Your task to perform on an android device: turn off notifications in google photos Image 0: 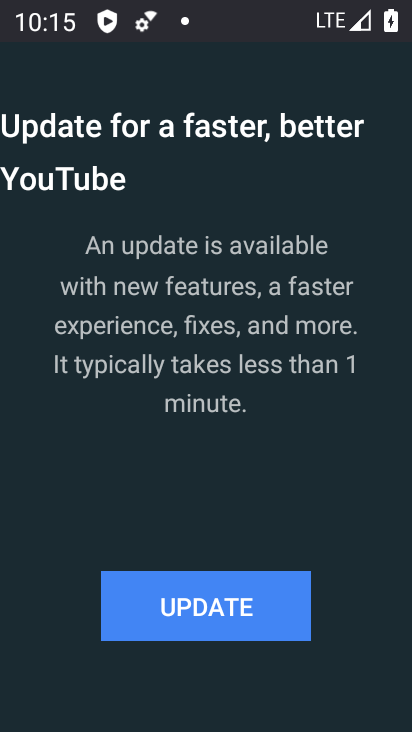
Step 0: press back button
Your task to perform on an android device: turn off notifications in google photos Image 1: 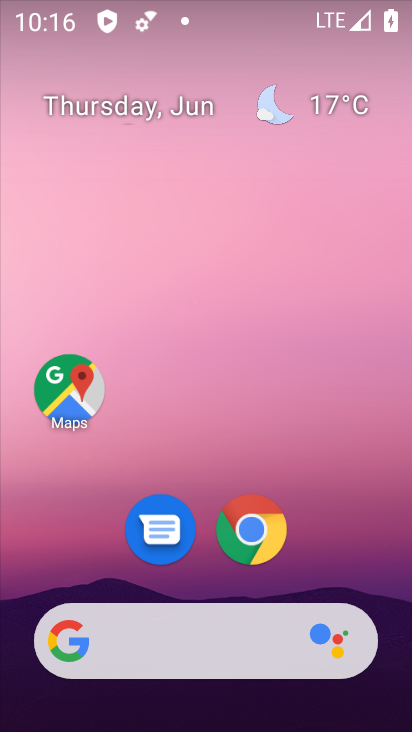
Step 1: drag from (211, 581) to (149, 0)
Your task to perform on an android device: turn off notifications in google photos Image 2: 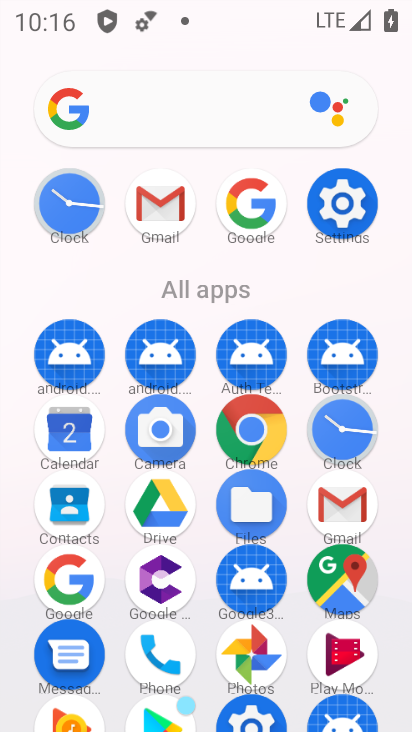
Step 2: click (246, 644)
Your task to perform on an android device: turn off notifications in google photos Image 3: 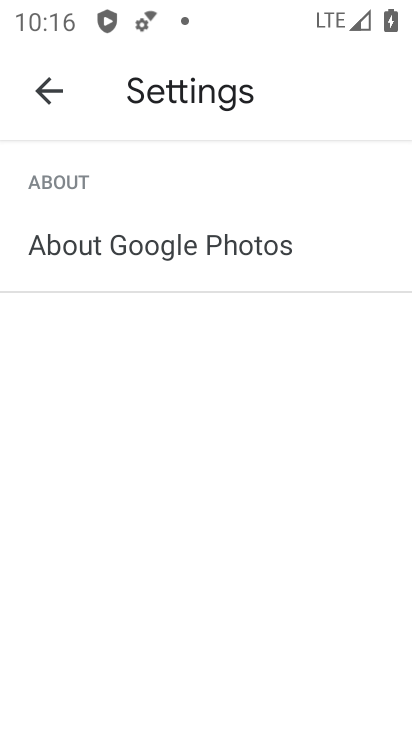
Step 3: click (43, 105)
Your task to perform on an android device: turn off notifications in google photos Image 4: 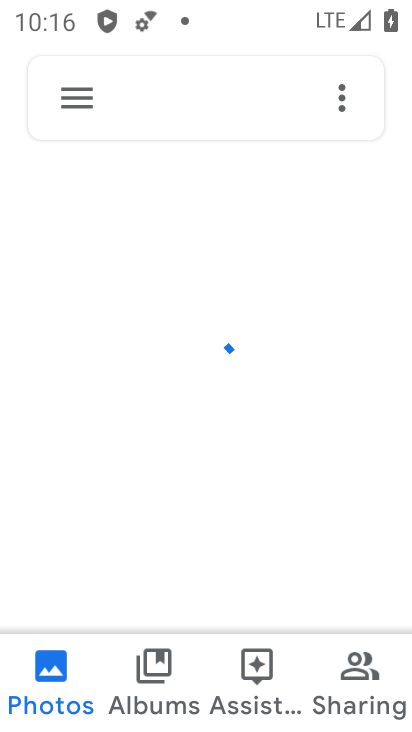
Step 4: click (68, 102)
Your task to perform on an android device: turn off notifications in google photos Image 5: 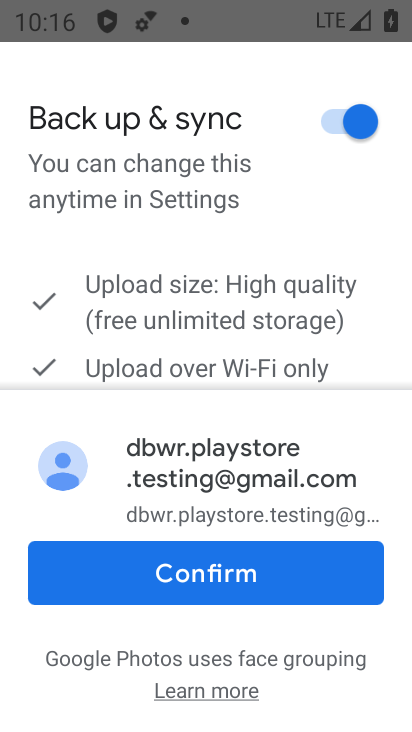
Step 5: click (256, 551)
Your task to perform on an android device: turn off notifications in google photos Image 6: 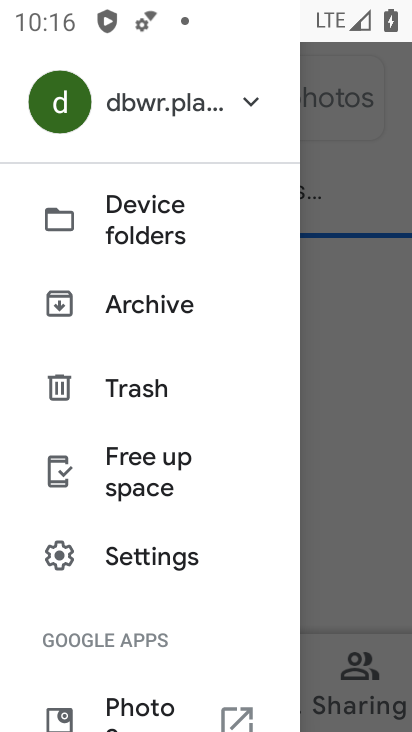
Step 6: click (143, 561)
Your task to perform on an android device: turn off notifications in google photos Image 7: 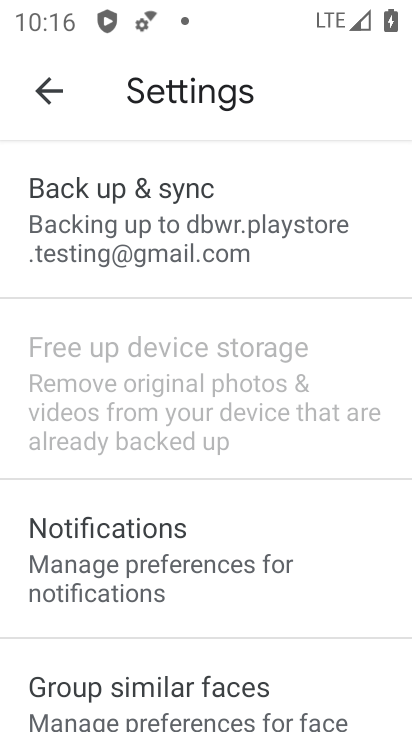
Step 7: click (204, 576)
Your task to perform on an android device: turn off notifications in google photos Image 8: 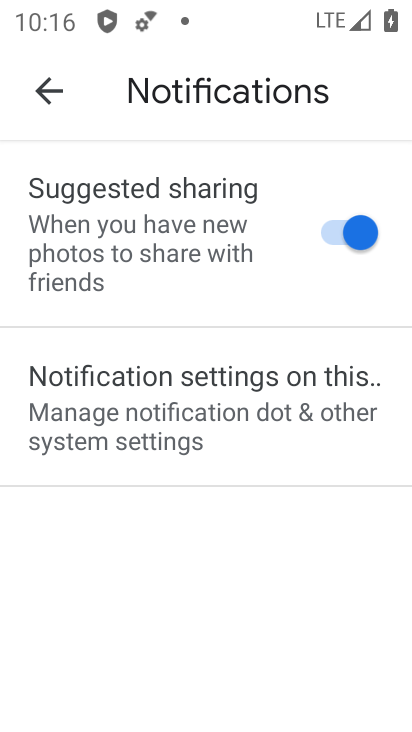
Step 8: click (170, 418)
Your task to perform on an android device: turn off notifications in google photos Image 9: 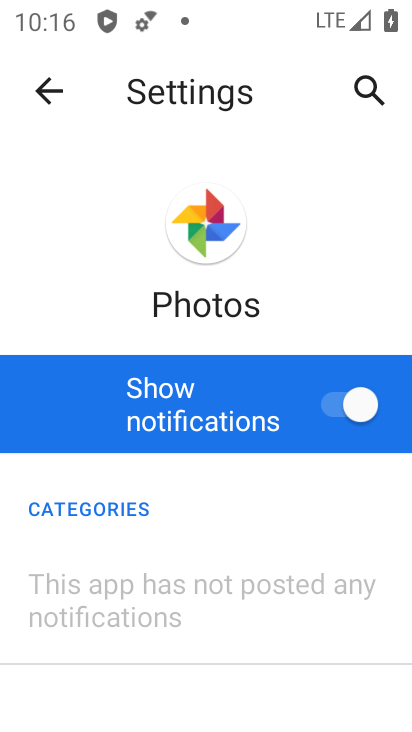
Step 9: click (342, 427)
Your task to perform on an android device: turn off notifications in google photos Image 10: 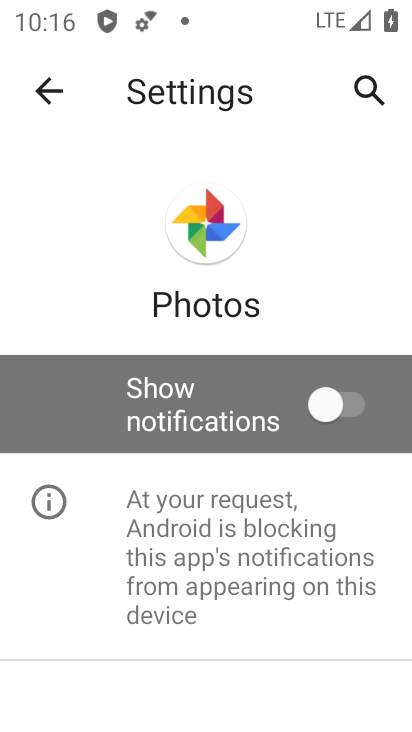
Step 10: task complete